Your task to perform on an android device: turn on data saver in the chrome app Image 0: 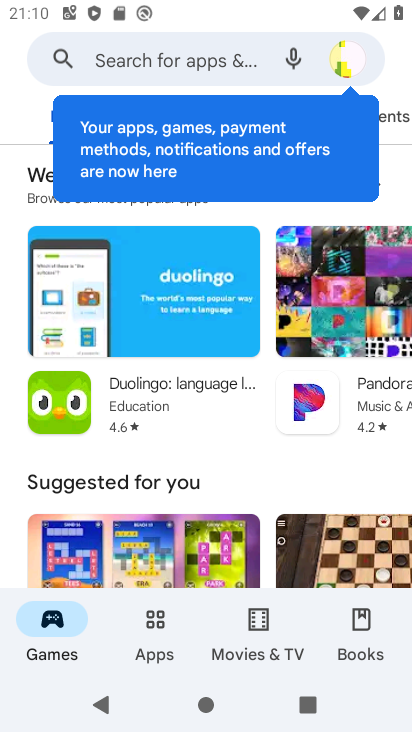
Step 0: press home button
Your task to perform on an android device: turn on data saver in the chrome app Image 1: 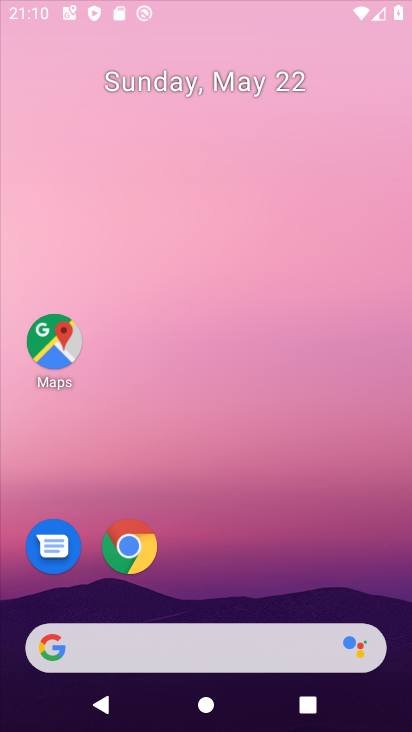
Step 1: drag from (240, 601) to (195, 267)
Your task to perform on an android device: turn on data saver in the chrome app Image 2: 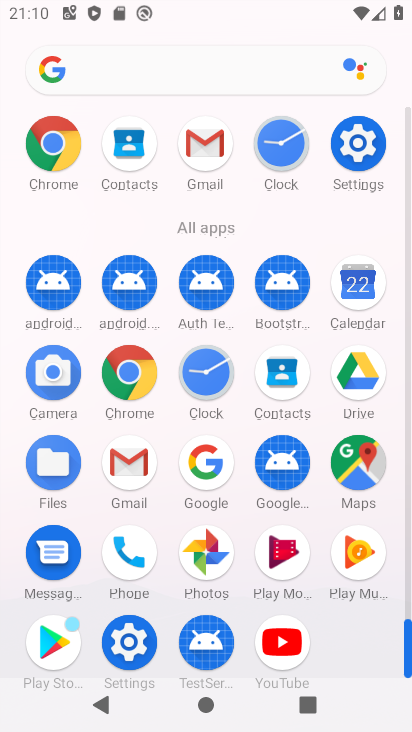
Step 2: click (45, 145)
Your task to perform on an android device: turn on data saver in the chrome app Image 3: 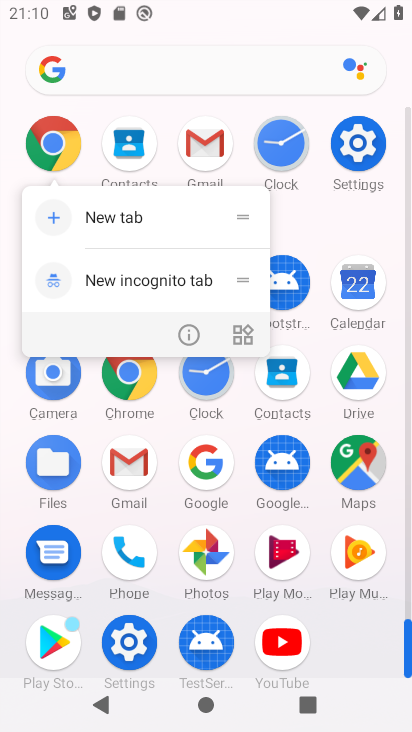
Step 3: click (176, 331)
Your task to perform on an android device: turn on data saver in the chrome app Image 4: 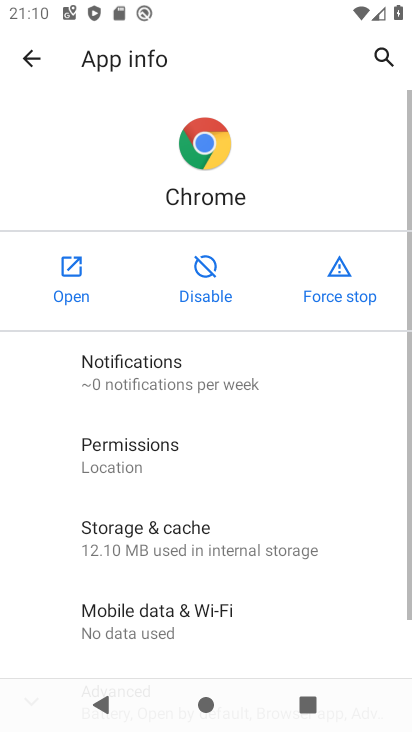
Step 4: click (70, 290)
Your task to perform on an android device: turn on data saver in the chrome app Image 5: 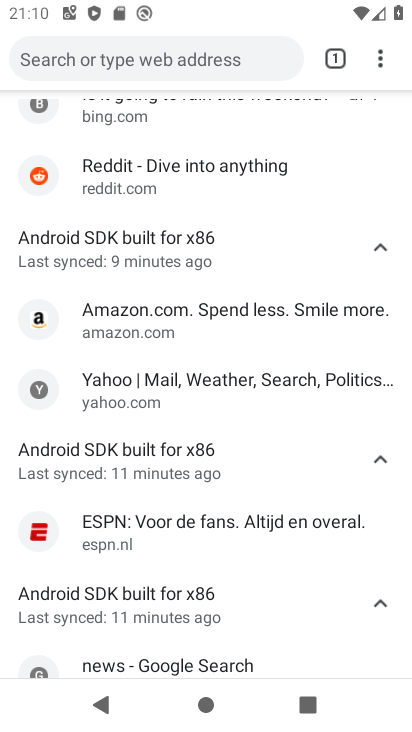
Step 5: click (390, 49)
Your task to perform on an android device: turn on data saver in the chrome app Image 6: 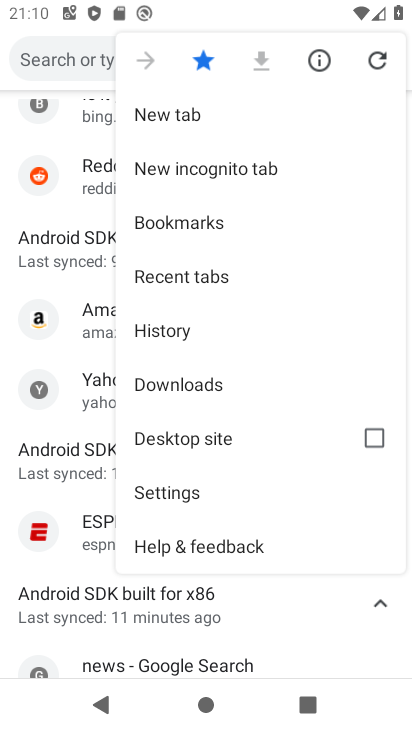
Step 6: click (176, 489)
Your task to perform on an android device: turn on data saver in the chrome app Image 7: 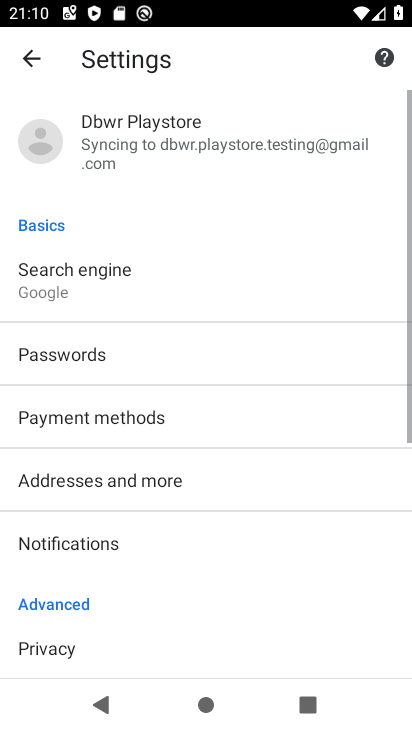
Step 7: drag from (216, 545) to (297, 194)
Your task to perform on an android device: turn on data saver in the chrome app Image 8: 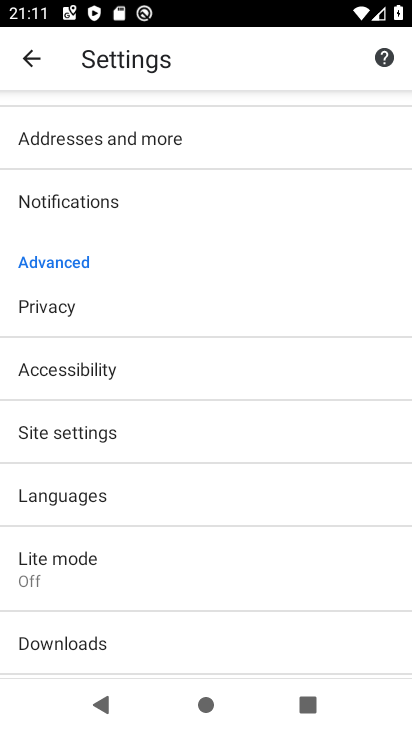
Step 8: drag from (99, 500) to (237, 178)
Your task to perform on an android device: turn on data saver in the chrome app Image 9: 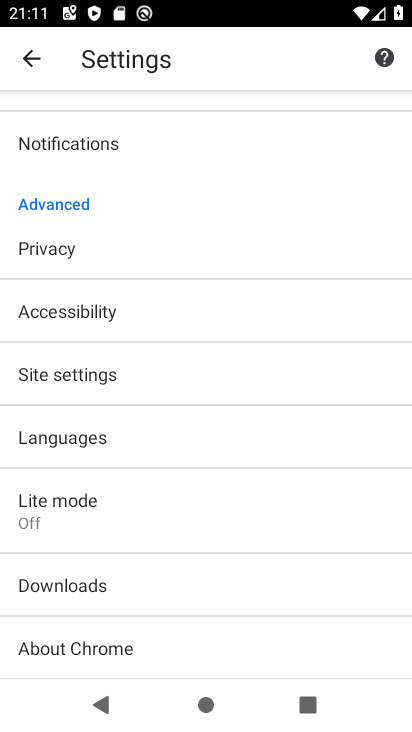
Step 9: click (71, 491)
Your task to perform on an android device: turn on data saver in the chrome app Image 10: 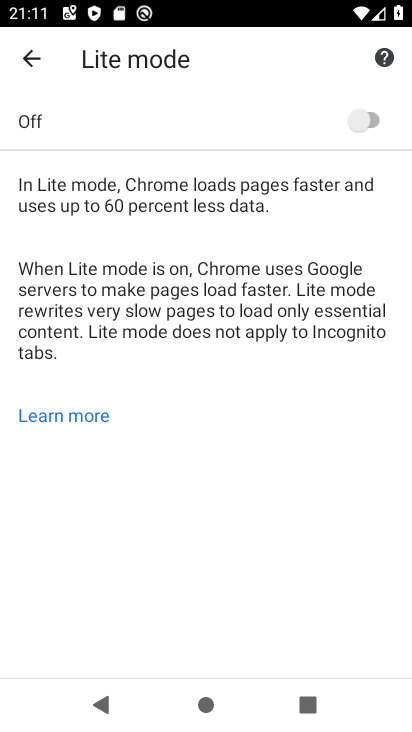
Step 10: click (345, 112)
Your task to perform on an android device: turn on data saver in the chrome app Image 11: 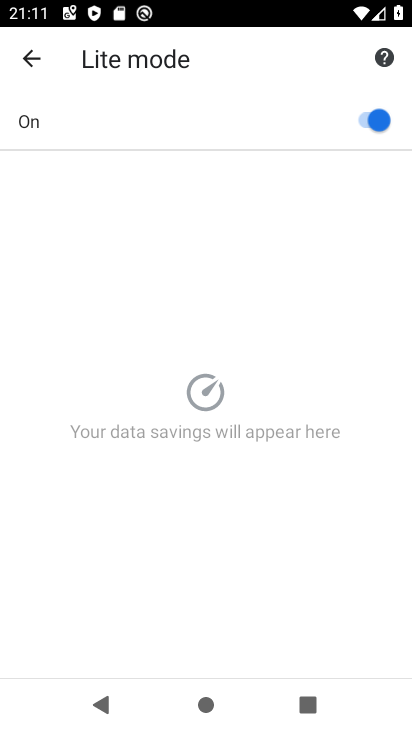
Step 11: task complete